Your task to perform on an android device: open app "LinkedIn" (install if not already installed) Image 0: 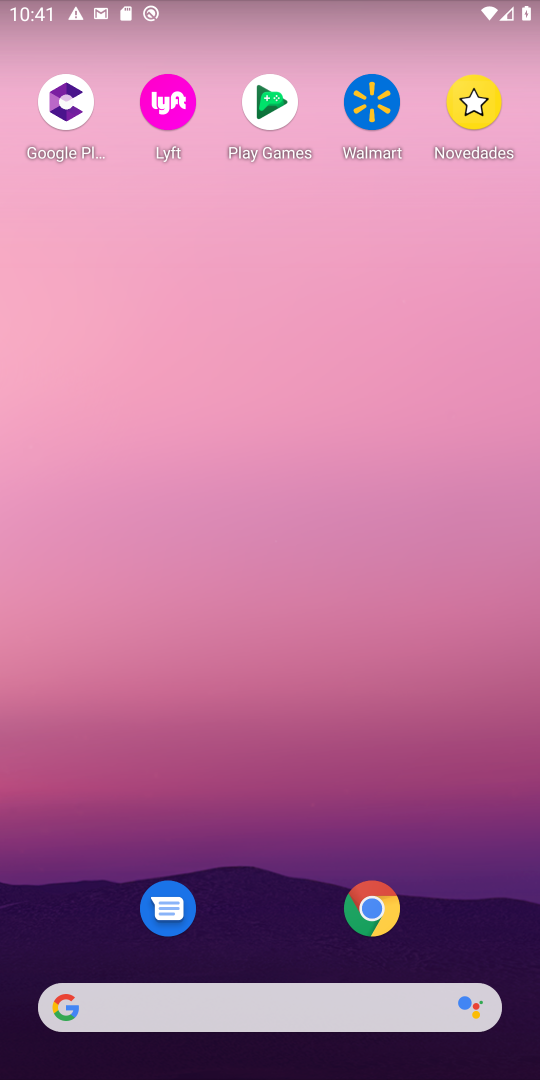
Step 0: drag from (220, 539) to (302, 15)
Your task to perform on an android device: open app "LinkedIn" (install if not already installed) Image 1: 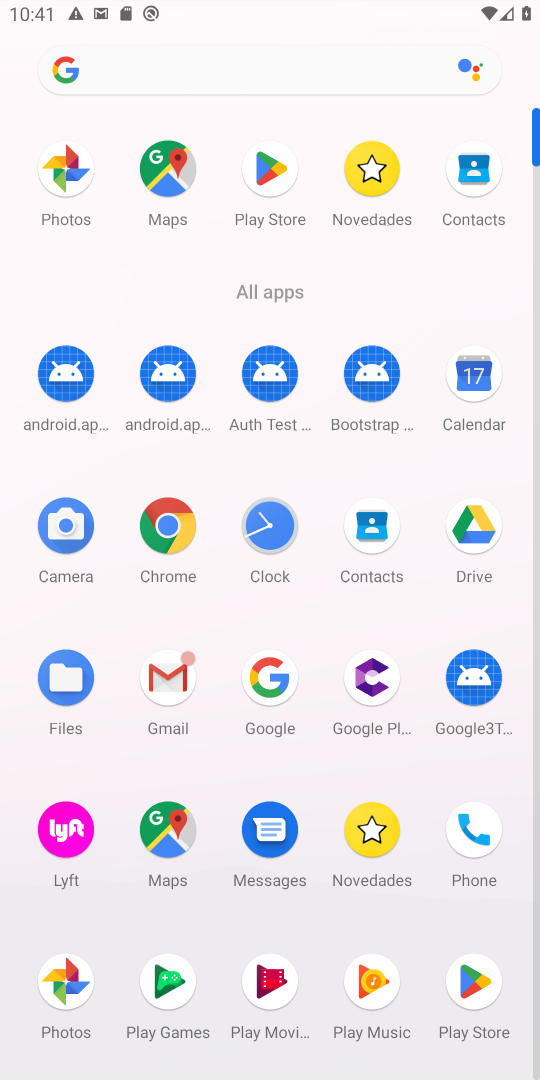
Step 1: click (260, 170)
Your task to perform on an android device: open app "LinkedIn" (install if not already installed) Image 2: 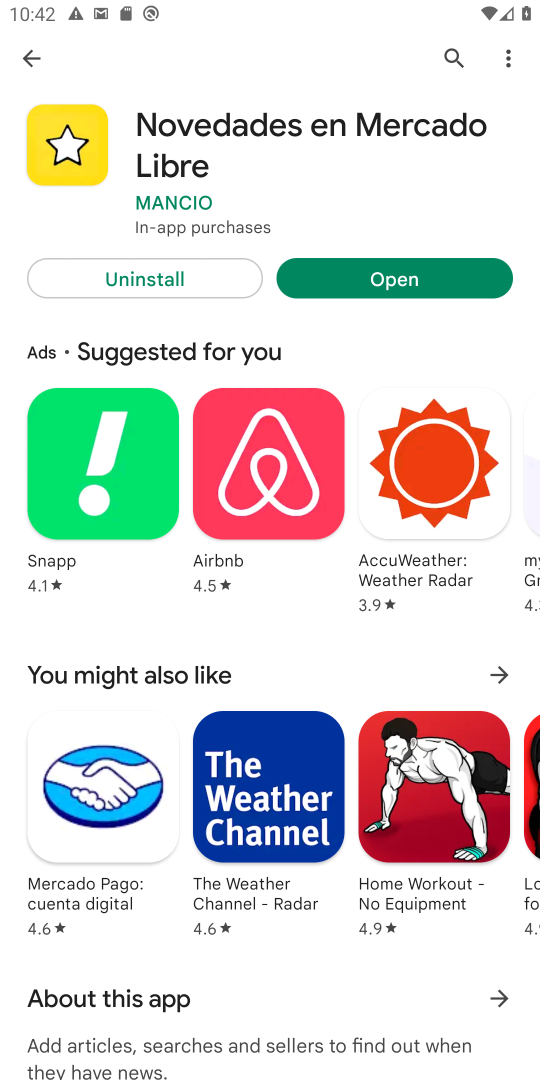
Step 2: click (450, 56)
Your task to perform on an android device: open app "LinkedIn" (install if not already installed) Image 3: 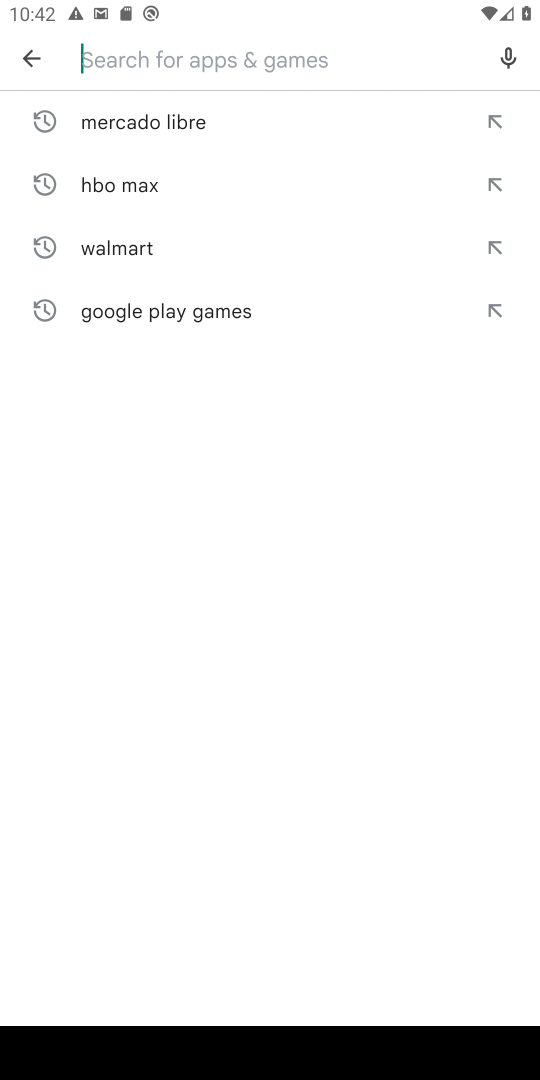
Step 3: click (151, 64)
Your task to perform on an android device: open app "LinkedIn" (install if not already installed) Image 4: 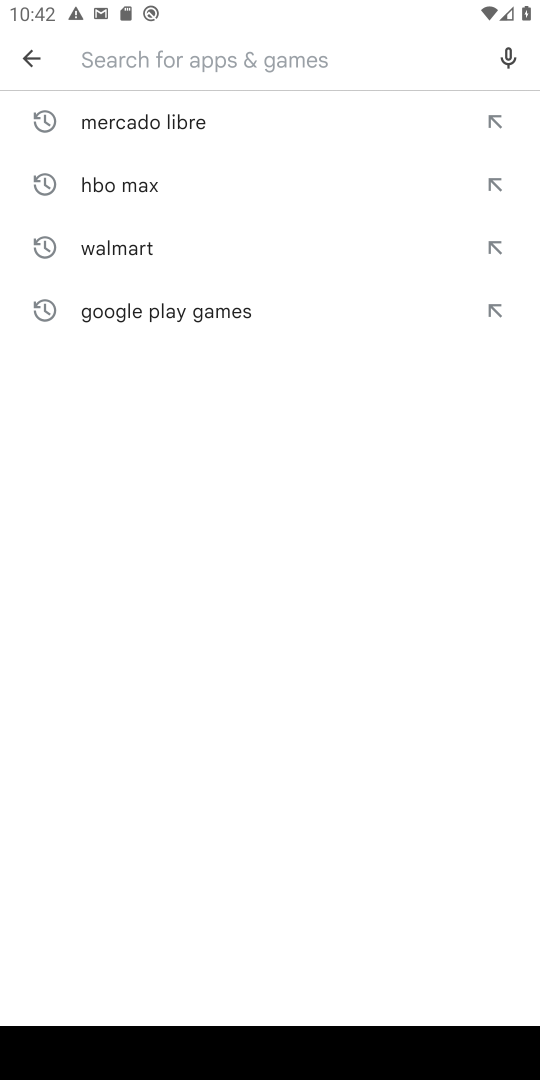
Step 4: type "linkedln"
Your task to perform on an android device: open app "LinkedIn" (install if not already installed) Image 5: 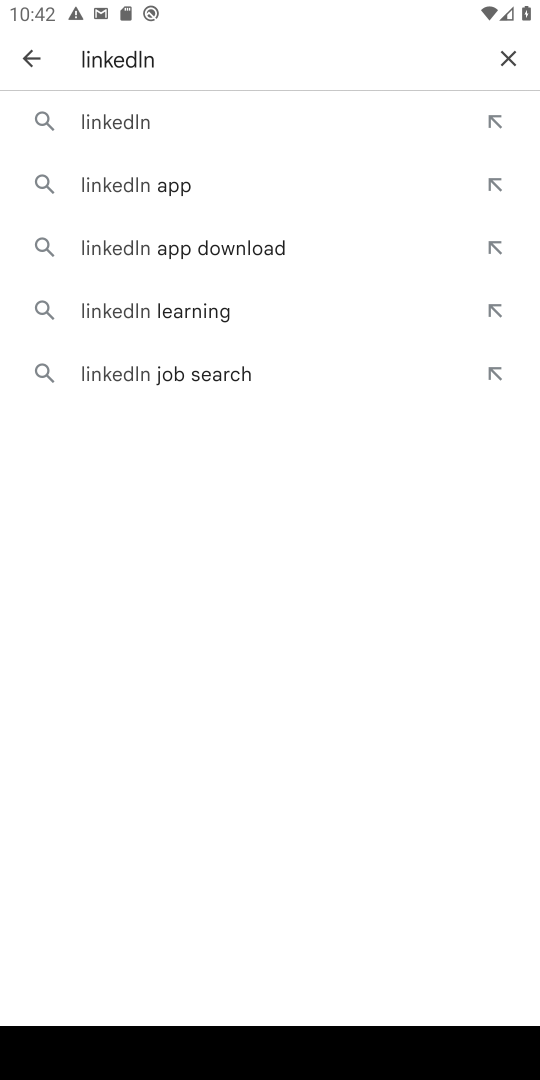
Step 5: click (101, 138)
Your task to perform on an android device: open app "LinkedIn" (install if not already installed) Image 6: 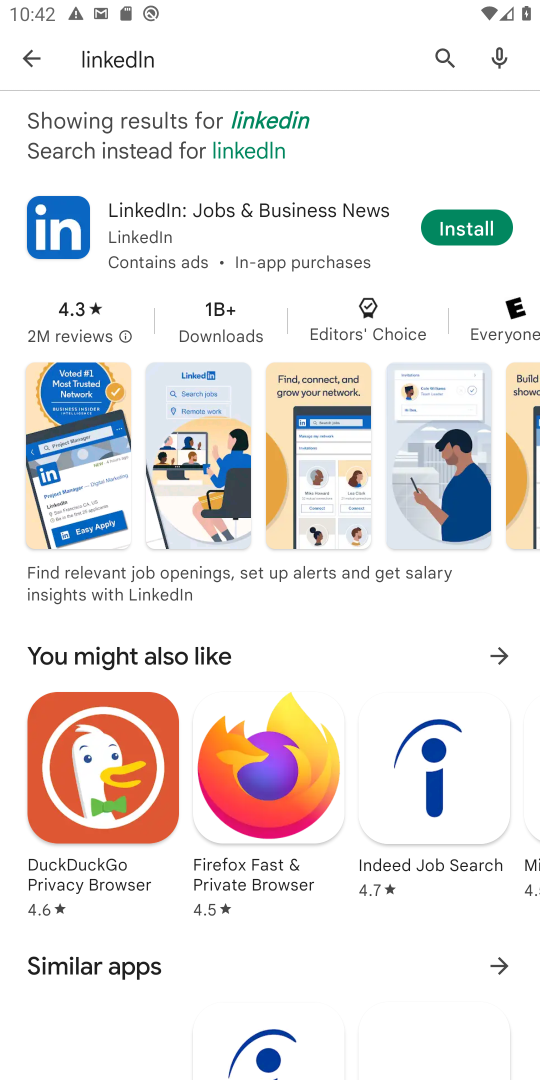
Step 6: click (453, 228)
Your task to perform on an android device: open app "LinkedIn" (install if not already installed) Image 7: 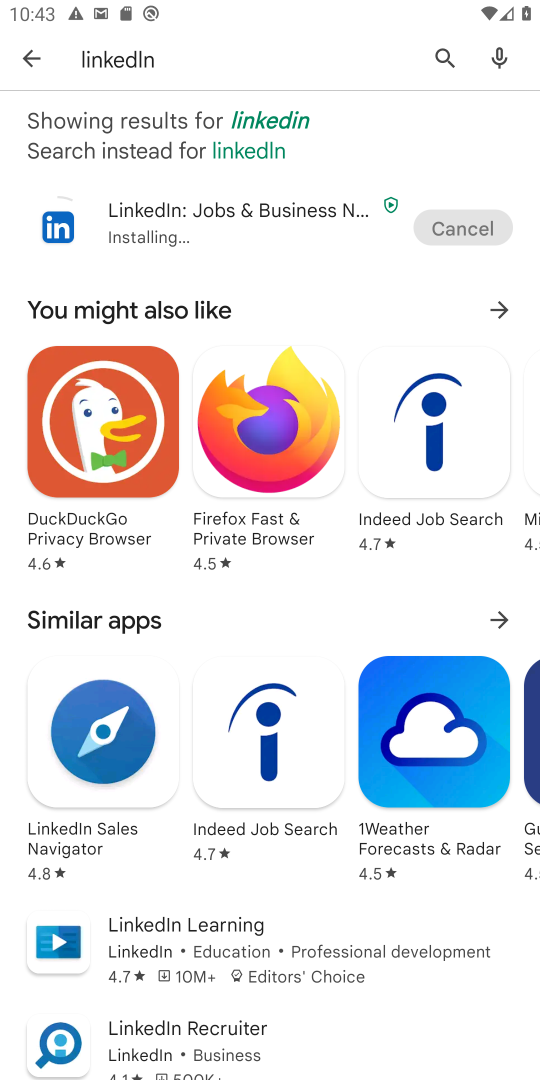
Step 7: press back button
Your task to perform on an android device: open app "LinkedIn" (install if not already installed) Image 8: 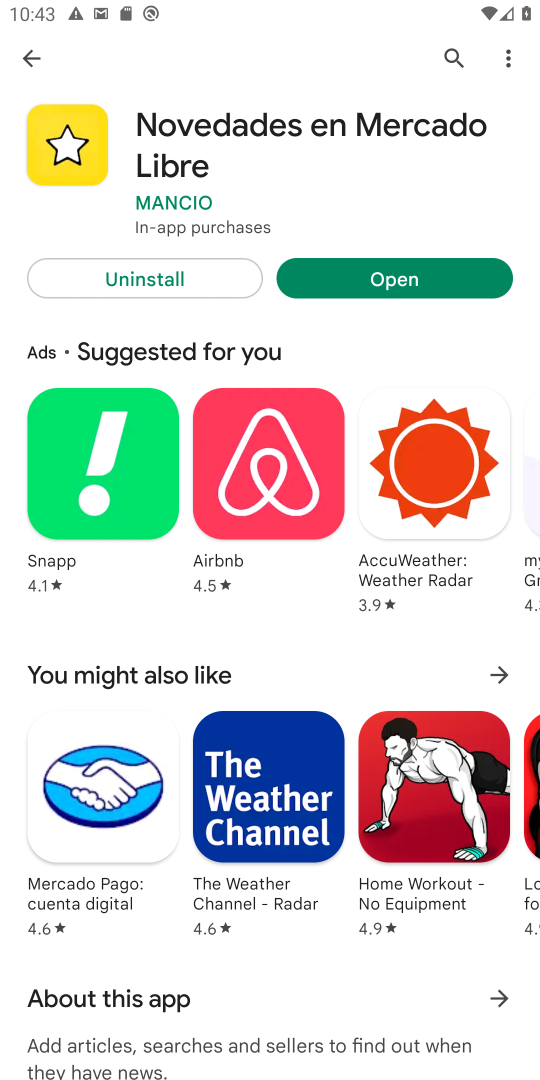
Step 8: click (449, 49)
Your task to perform on an android device: open app "LinkedIn" (install if not already installed) Image 9: 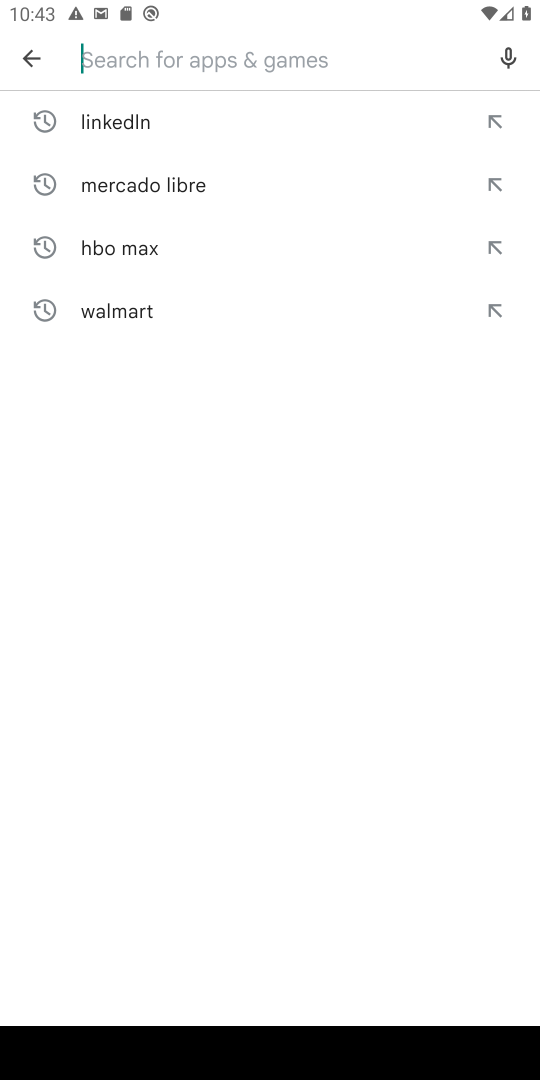
Step 9: click (115, 111)
Your task to perform on an android device: open app "LinkedIn" (install if not already installed) Image 10: 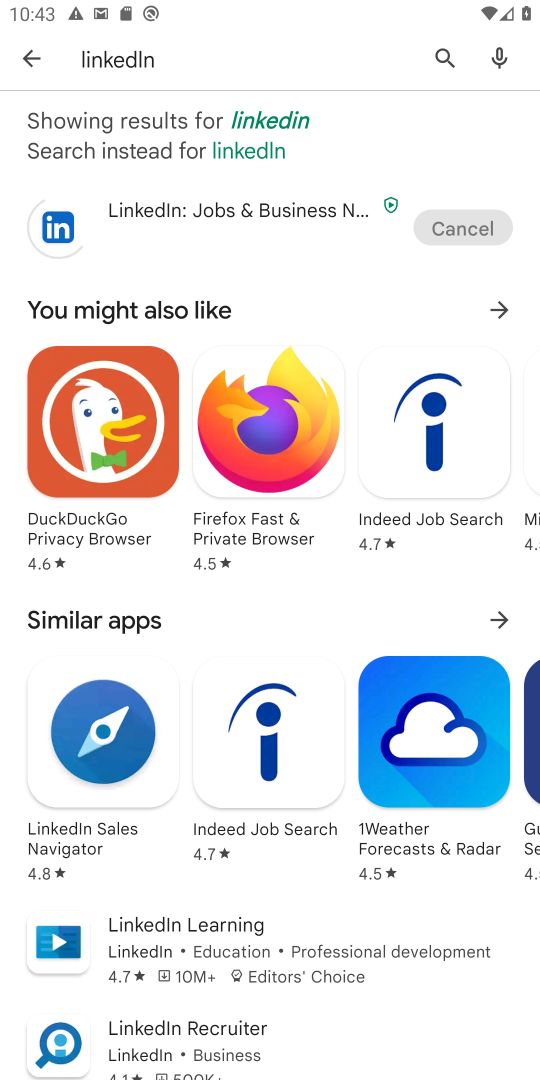
Step 10: click (259, 217)
Your task to perform on an android device: open app "LinkedIn" (install if not already installed) Image 11: 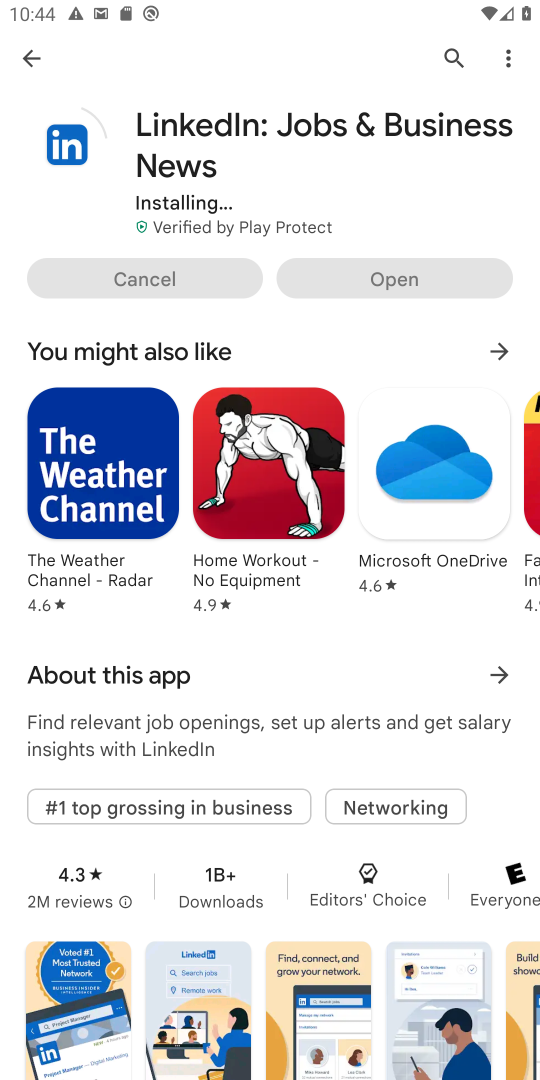
Step 11: press back button
Your task to perform on an android device: open app "LinkedIn" (install if not already installed) Image 12: 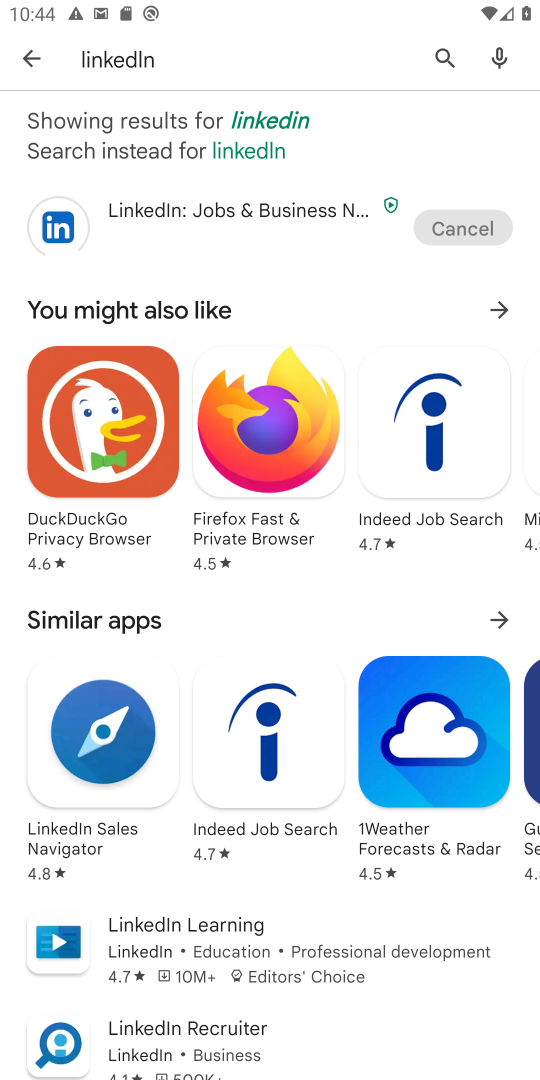
Step 12: click (232, 225)
Your task to perform on an android device: open app "LinkedIn" (install if not already installed) Image 13: 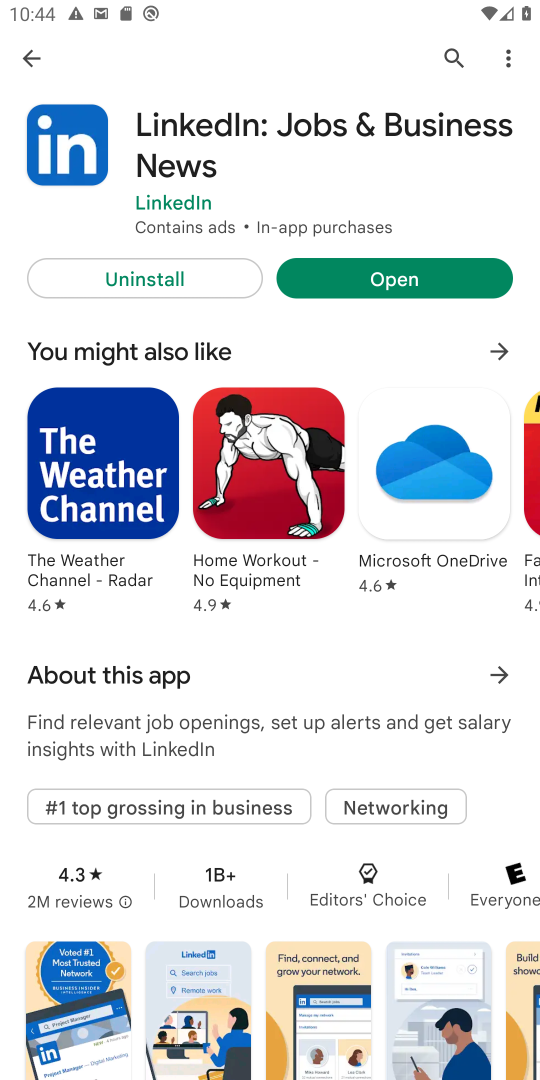
Step 13: click (424, 285)
Your task to perform on an android device: open app "LinkedIn" (install if not already installed) Image 14: 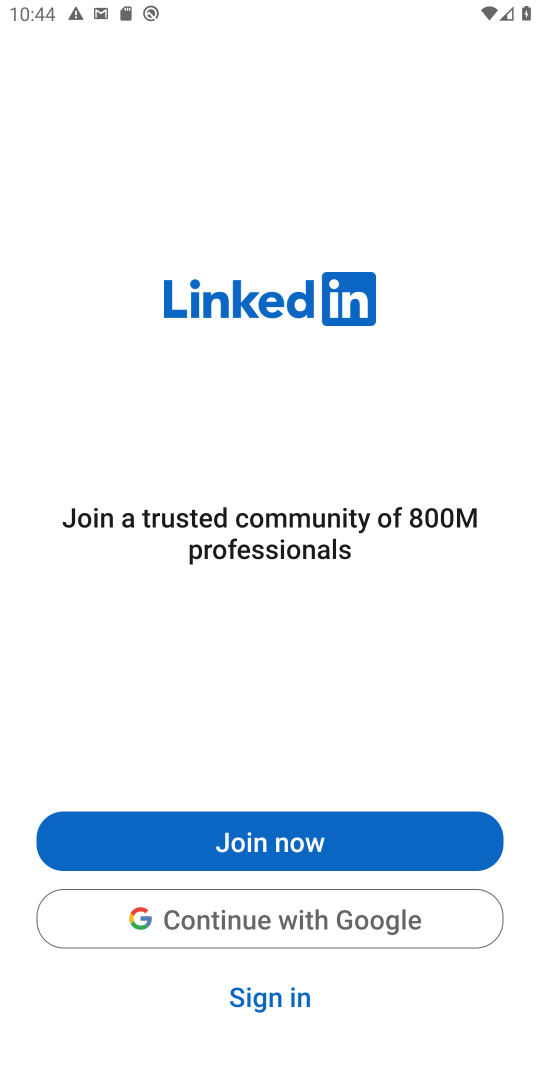
Step 14: task complete